Your task to perform on an android device: turn off wifi Image 0: 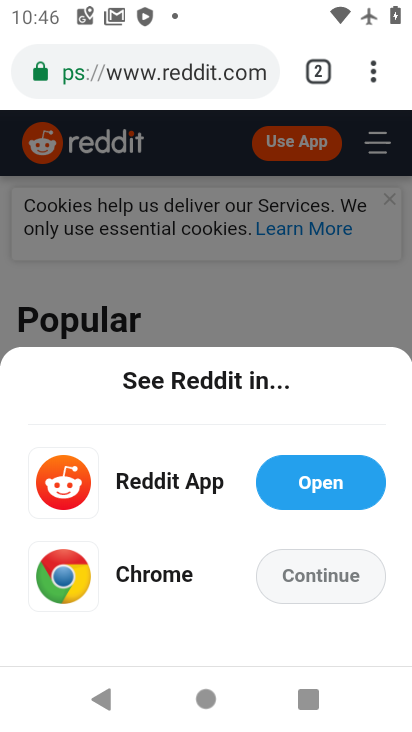
Step 0: press home button
Your task to perform on an android device: turn off wifi Image 1: 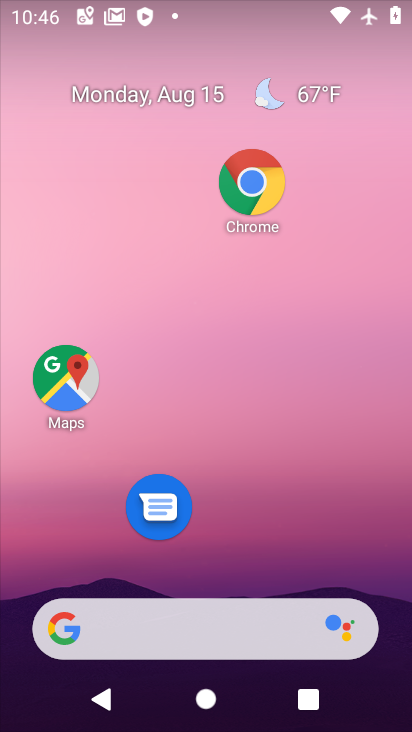
Step 1: drag from (203, 578) to (180, 2)
Your task to perform on an android device: turn off wifi Image 2: 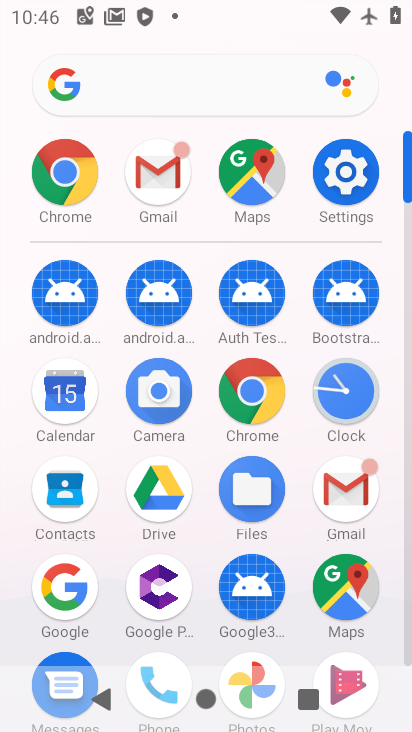
Step 2: click (340, 184)
Your task to perform on an android device: turn off wifi Image 3: 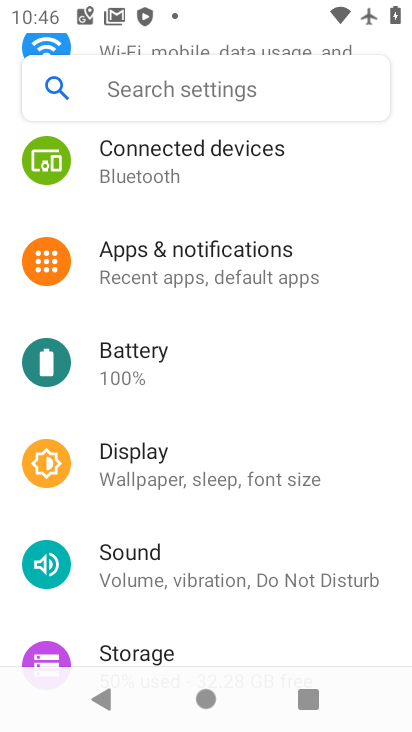
Step 3: drag from (229, 258) to (244, 593)
Your task to perform on an android device: turn off wifi Image 4: 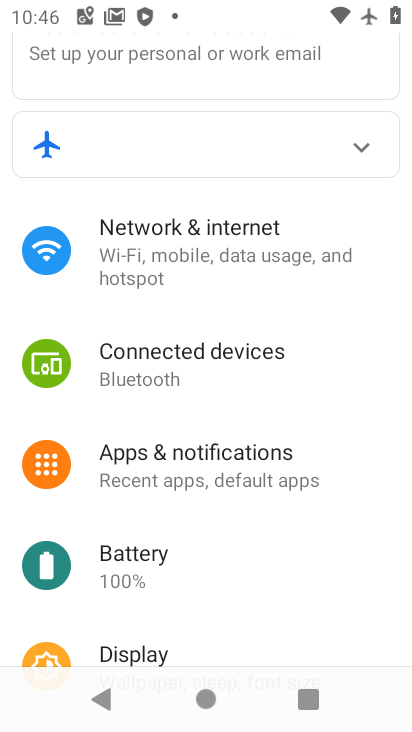
Step 4: click (222, 92)
Your task to perform on an android device: turn off wifi Image 5: 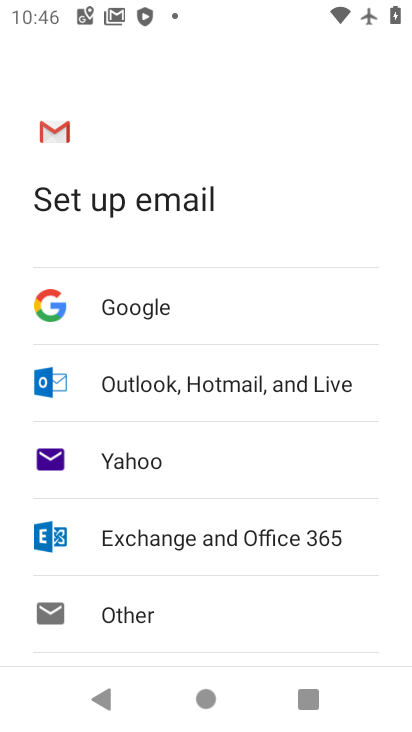
Step 5: press home button
Your task to perform on an android device: turn off wifi Image 6: 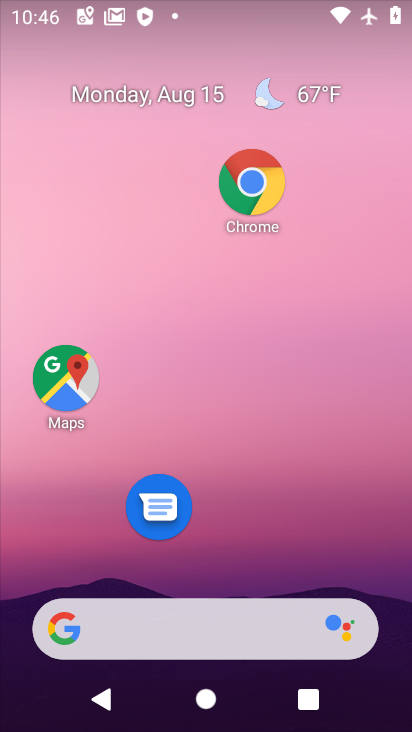
Step 6: drag from (254, 580) to (259, 37)
Your task to perform on an android device: turn off wifi Image 7: 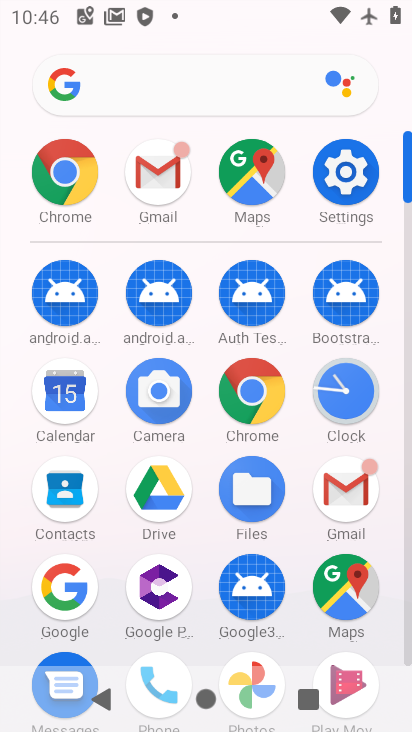
Step 7: click (337, 190)
Your task to perform on an android device: turn off wifi Image 8: 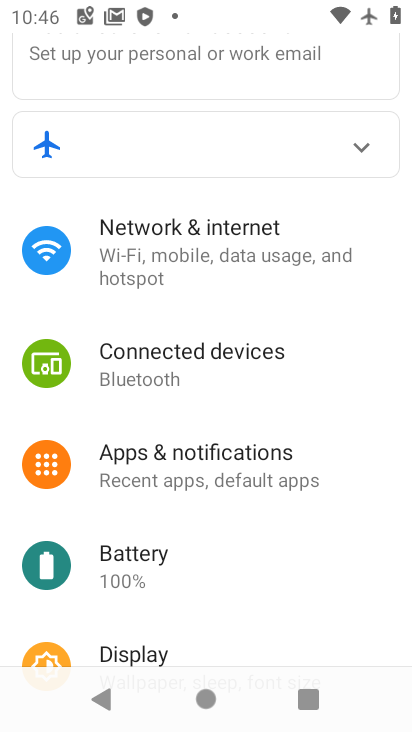
Step 8: click (228, 117)
Your task to perform on an android device: turn off wifi Image 9: 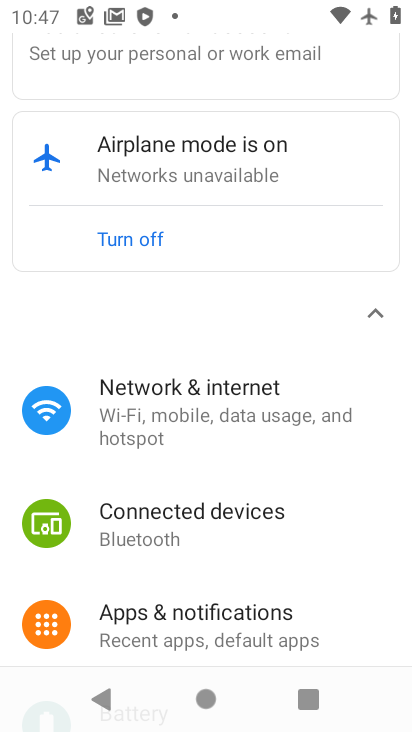
Step 9: click (135, 399)
Your task to perform on an android device: turn off wifi Image 10: 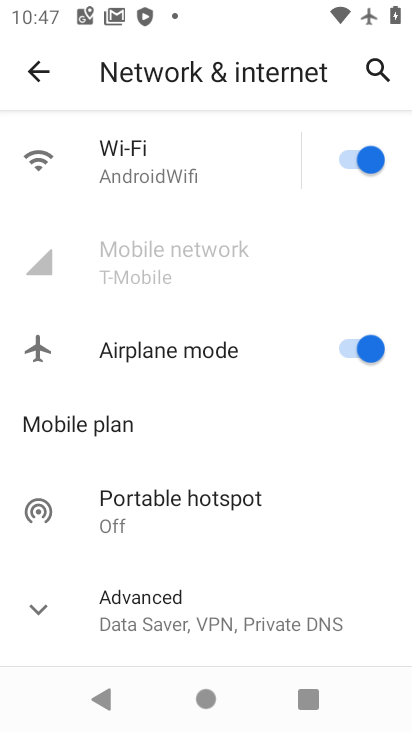
Step 10: click (359, 142)
Your task to perform on an android device: turn off wifi Image 11: 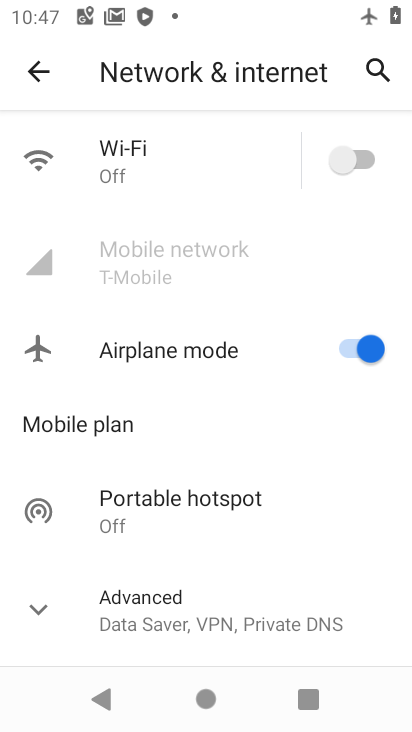
Step 11: click (369, 346)
Your task to perform on an android device: turn off wifi Image 12: 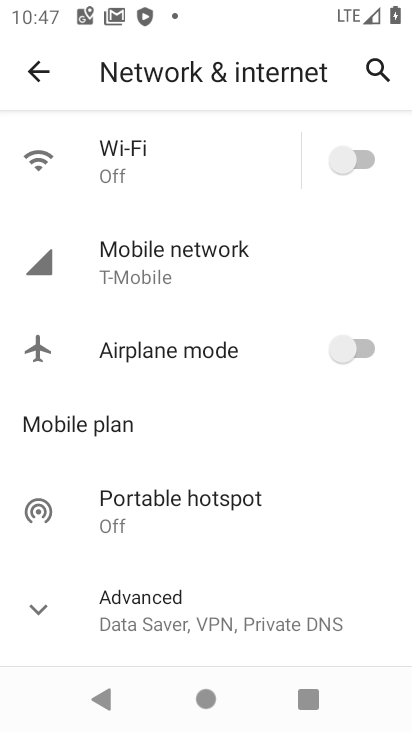
Step 12: task complete